Your task to perform on an android device: open sync settings in chrome Image 0: 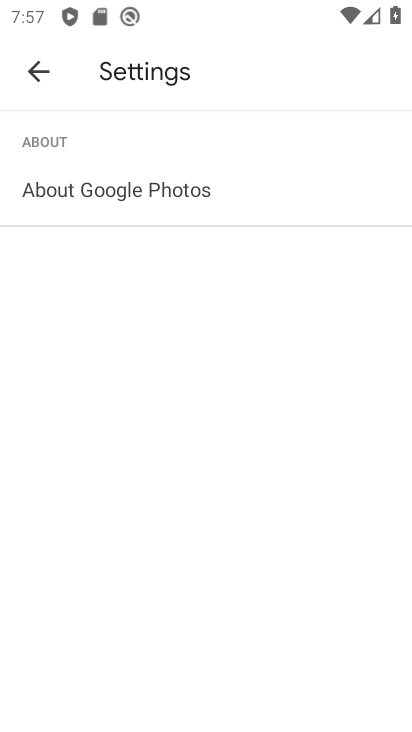
Step 0: press home button
Your task to perform on an android device: open sync settings in chrome Image 1: 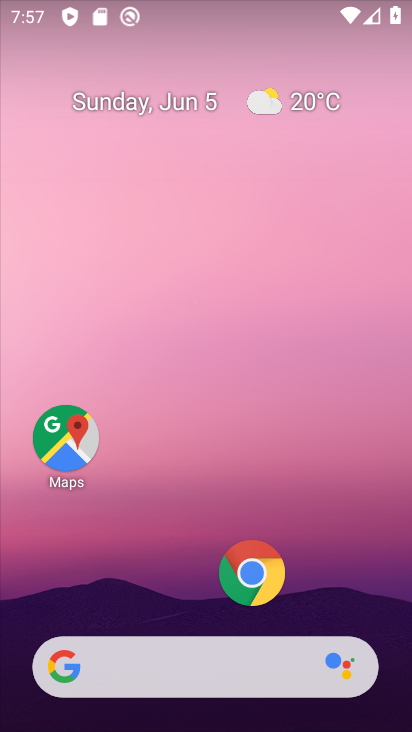
Step 1: click (244, 595)
Your task to perform on an android device: open sync settings in chrome Image 2: 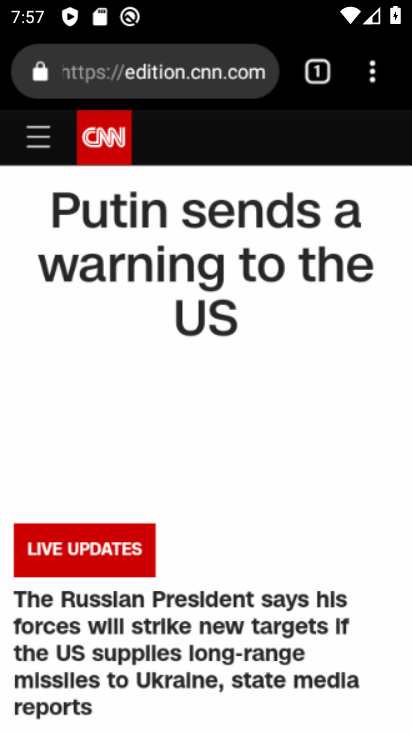
Step 2: click (364, 73)
Your task to perform on an android device: open sync settings in chrome Image 3: 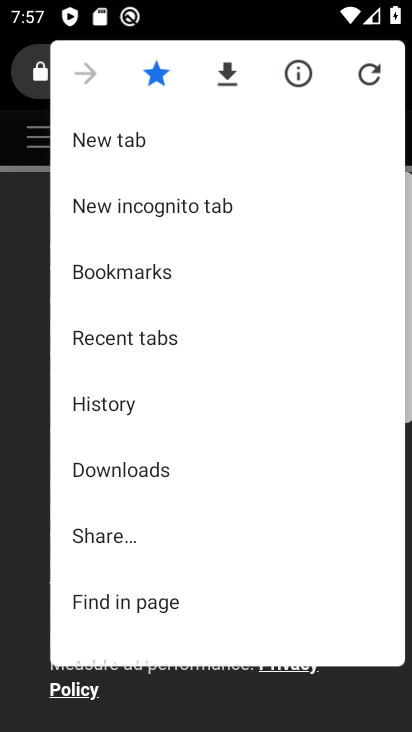
Step 3: drag from (186, 591) to (203, 366)
Your task to perform on an android device: open sync settings in chrome Image 4: 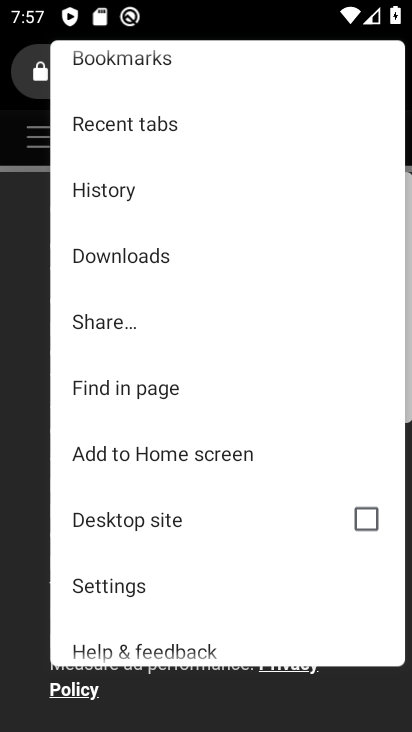
Step 4: click (109, 581)
Your task to perform on an android device: open sync settings in chrome Image 5: 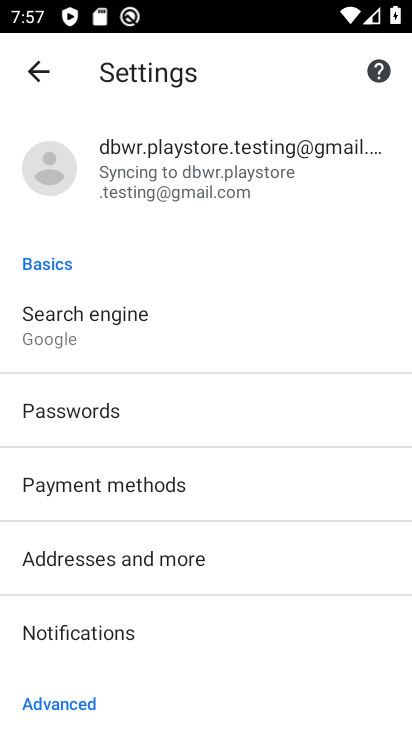
Step 5: click (138, 152)
Your task to perform on an android device: open sync settings in chrome Image 6: 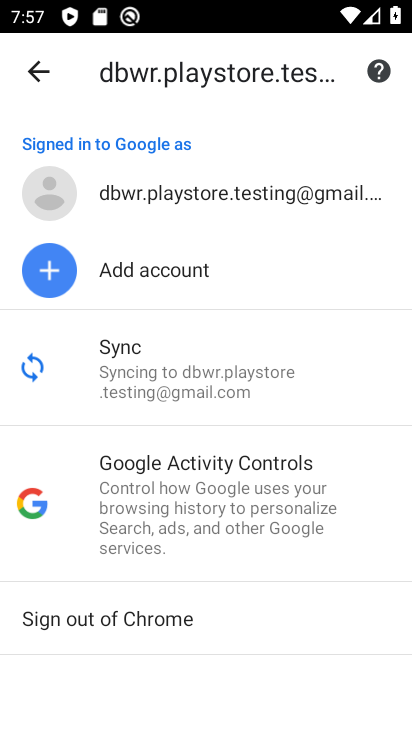
Step 6: click (176, 345)
Your task to perform on an android device: open sync settings in chrome Image 7: 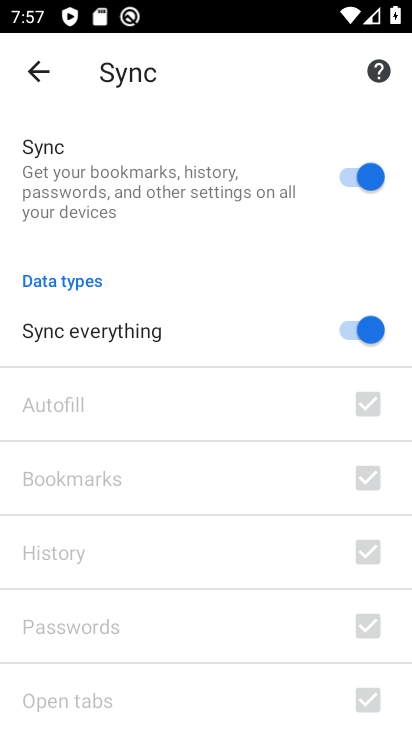
Step 7: task complete